Your task to perform on an android device: Open the map Image 0: 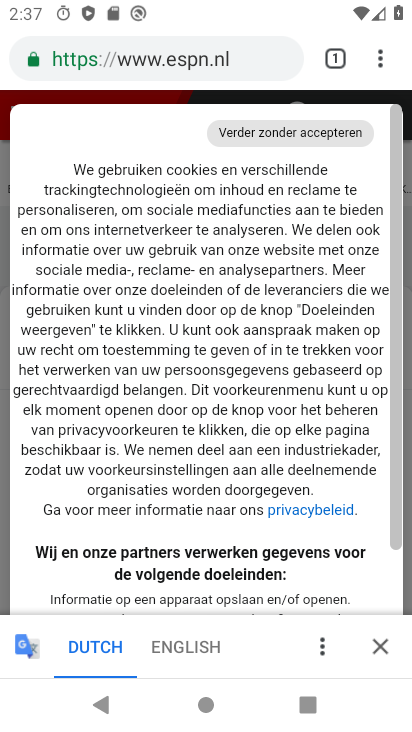
Step 0: press home button
Your task to perform on an android device: Open the map Image 1: 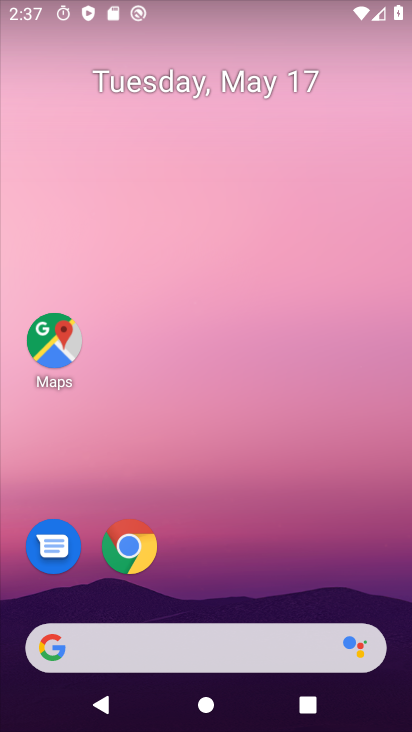
Step 1: drag from (246, 598) to (203, 210)
Your task to perform on an android device: Open the map Image 2: 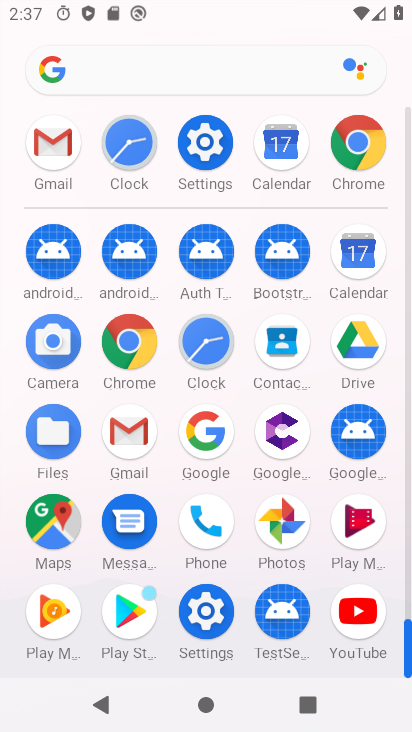
Step 2: drag from (223, 516) to (226, 213)
Your task to perform on an android device: Open the map Image 3: 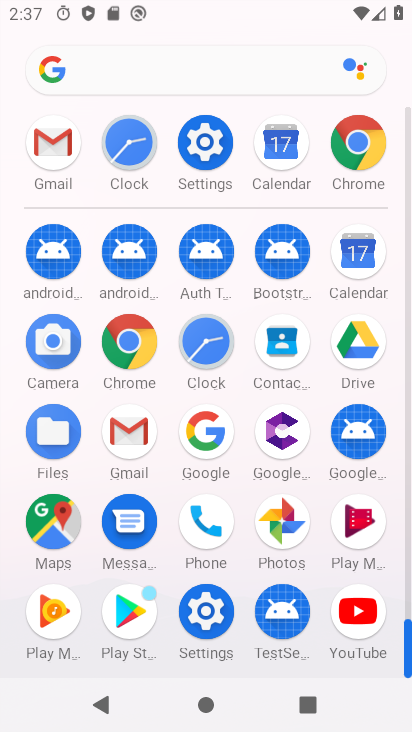
Step 3: click (53, 520)
Your task to perform on an android device: Open the map Image 4: 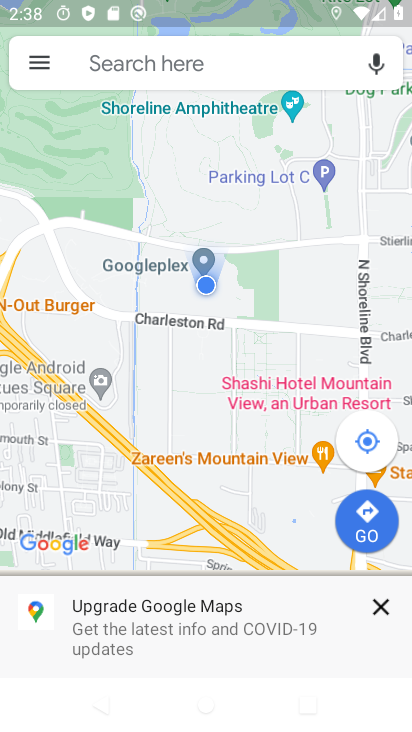
Step 4: task complete